Your task to perform on an android device: Find coffee shops on Maps Image 0: 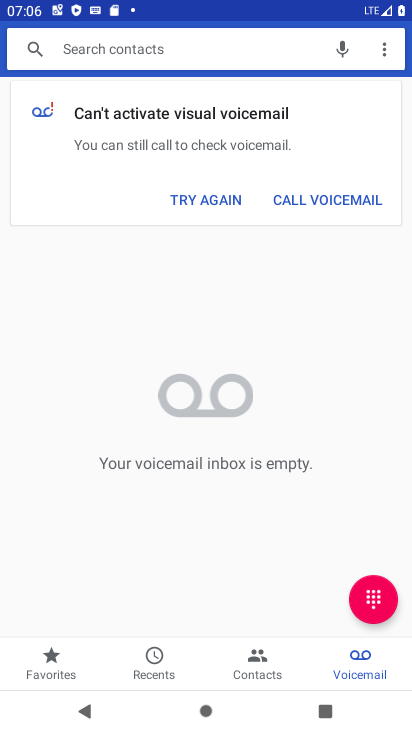
Step 0: press home button
Your task to perform on an android device: Find coffee shops on Maps Image 1: 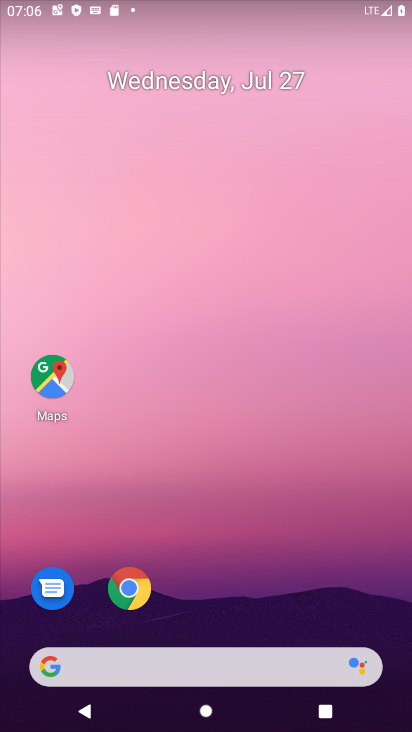
Step 1: drag from (235, 668) to (307, 2)
Your task to perform on an android device: Find coffee shops on Maps Image 2: 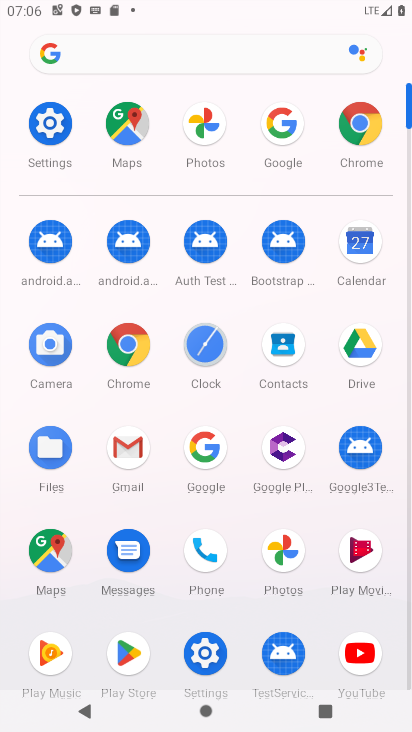
Step 2: click (58, 552)
Your task to perform on an android device: Find coffee shops on Maps Image 3: 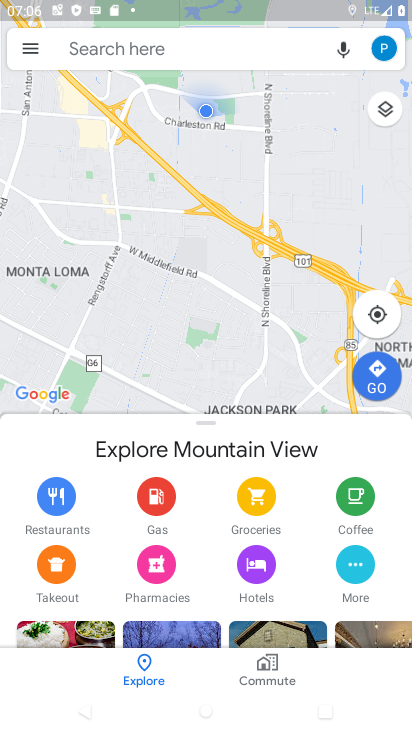
Step 3: click (203, 47)
Your task to perform on an android device: Find coffee shops on Maps Image 4: 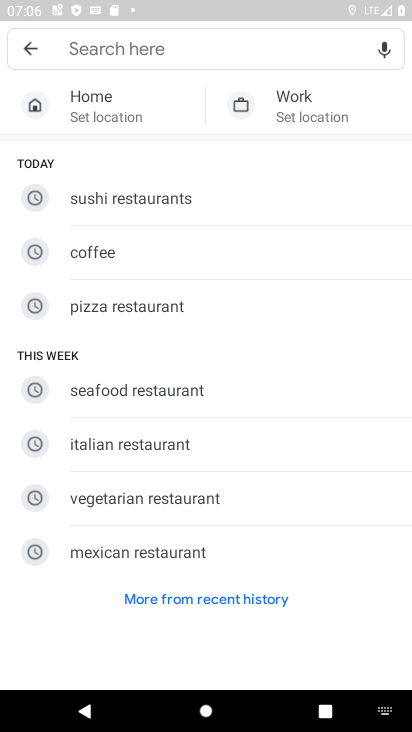
Step 4: type "coffee shops"
Your task to perform on an android device: Find coffee shops on Maps Image 5: 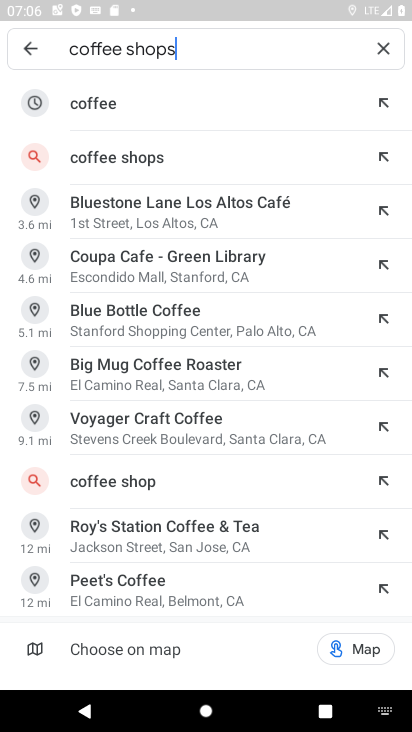
Step 5: click (136, 149)
Your task to perform on an android device: Find coffee shops on Maps Image 6: 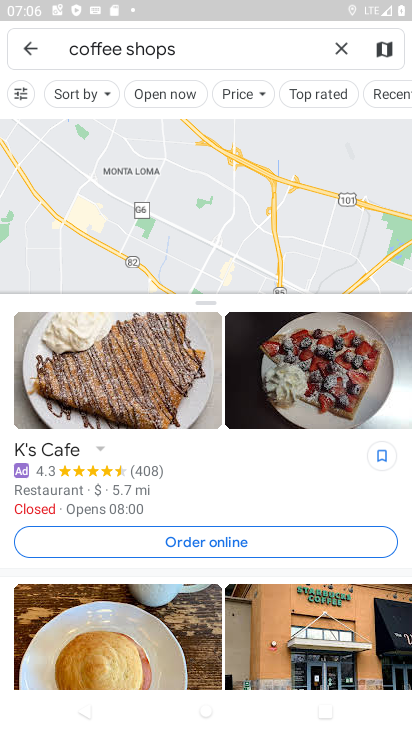
Step 6: task complete